Your task to perform on an android device: Go to Google Image 0: 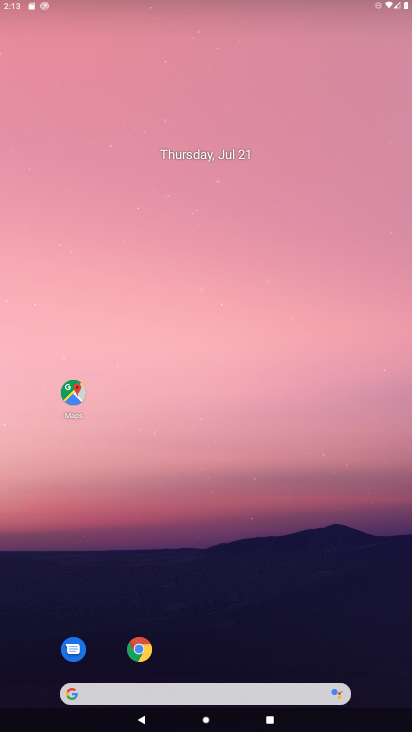
Step 0: press home button
Your task to perform on an android device: Go to Google Image 1: 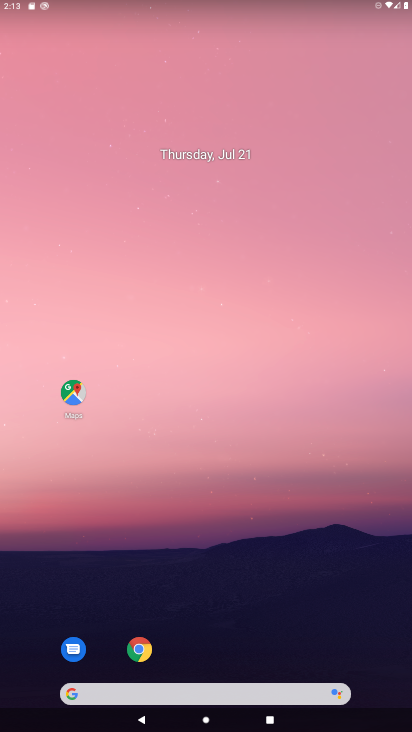
Step 1: drag from (203, 642) to (220, 26)
Your task to perform on an android device: Go to Google Image 2: 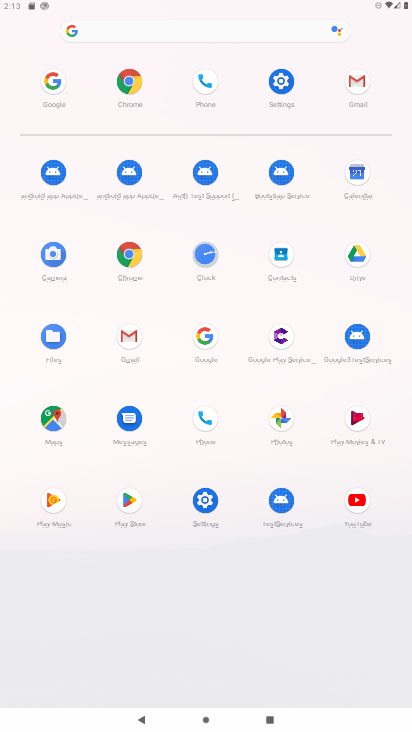
Step 2: click (214, 339)
Your task to perform on an android device: Go to Google Image 3: 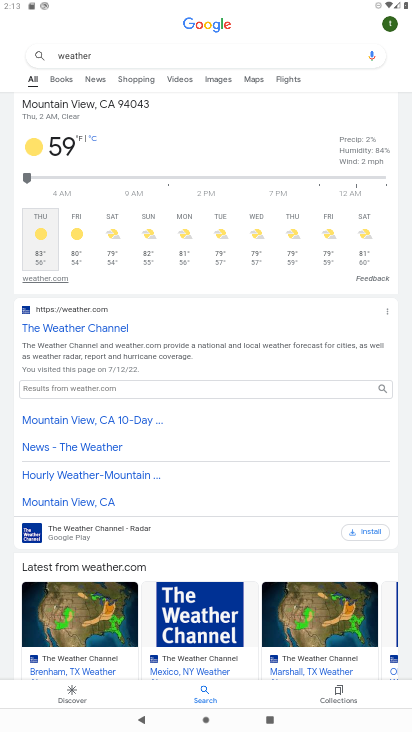
Step 3: task complete